Your task to perform on an android device: Open maps Image 0: 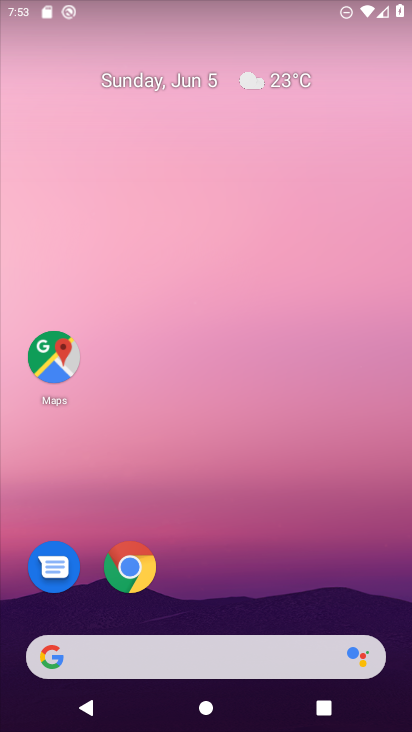
Step 0: drag from (391, 595) to (291, 44)
Your task to perform on an android device: Open maps Image 1: 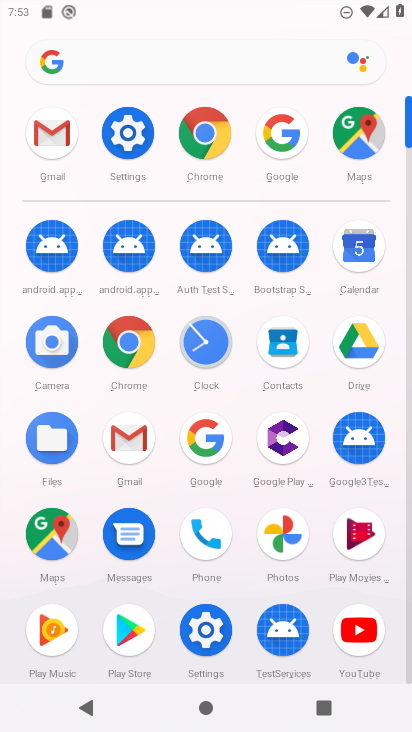
Step 1: click (58, 542)
Your task to perform on an android device: Open maps Image 2: 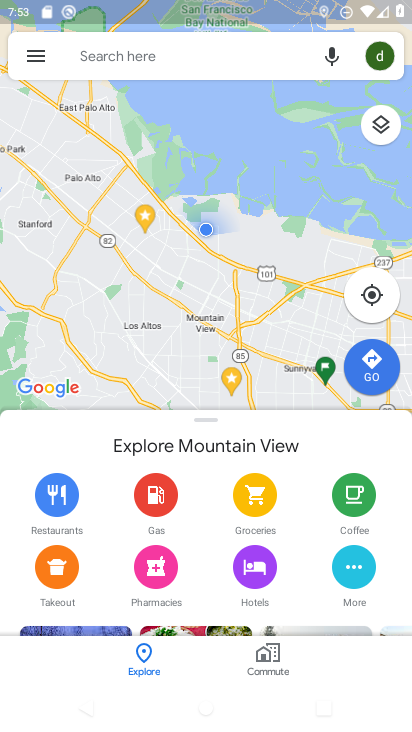
Step 2: task complete